Your task to perform on an android device: What's the weather going to be this weekend? Image 0: 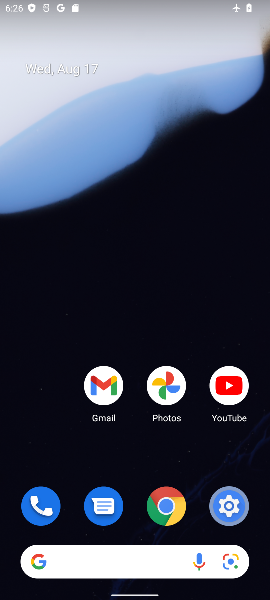
Step 0: click (176, 500)
Your task to perform on an android device: What's the weather going to be this weekend? Image 1: 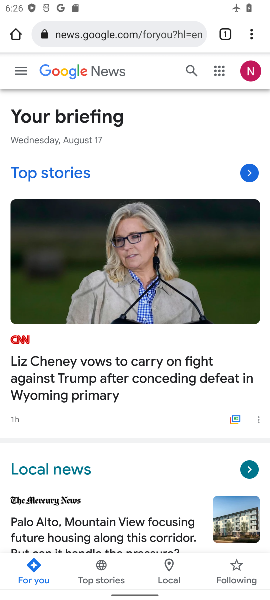
Step 1: click (169, 29)
Your task to perform on an android device: What's the weather going to be this weekend? Image 2: 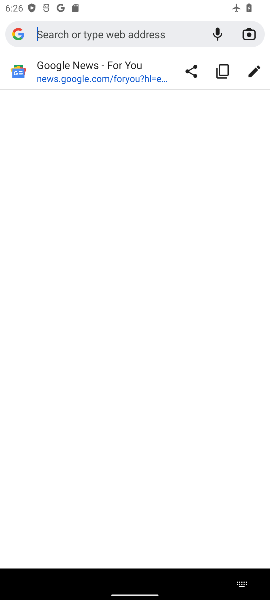
Step 2: type "weather"
Your task to perform on an android device: What's the weather going to be this weekend? Image 3: 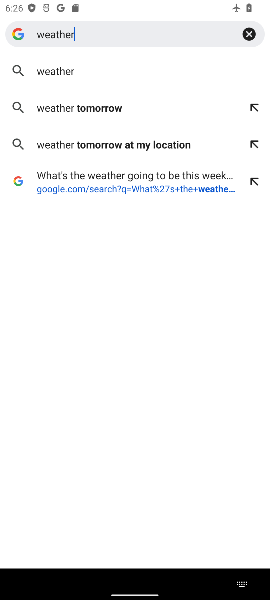
Step 3: click (64, 76)
Your task to perform on an android device: What's the weather going to be this weekend? Image 4: 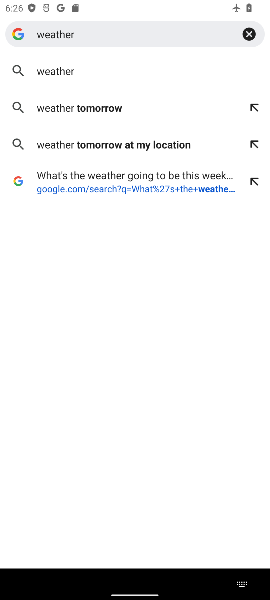
Step 4: click (64, 69)
Your task to perform on an android device: What's the weather going to be this weekend? Image 5: 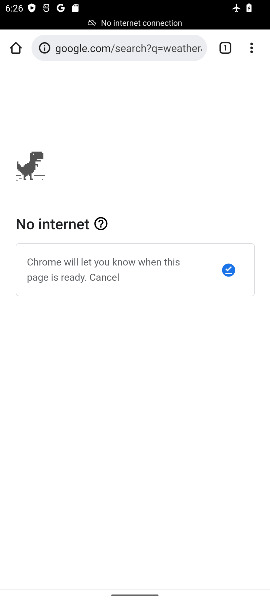
Step 5: task complete